Your task to perform on an android device: Show me productivity apps on the Play Store Image 0: 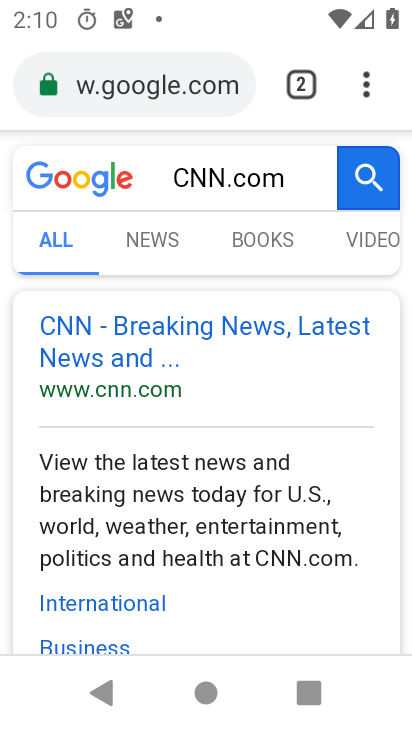
Step 0: press home button
Your task to perform on an android device: Show me productivity apps on the Play Store Image 1: 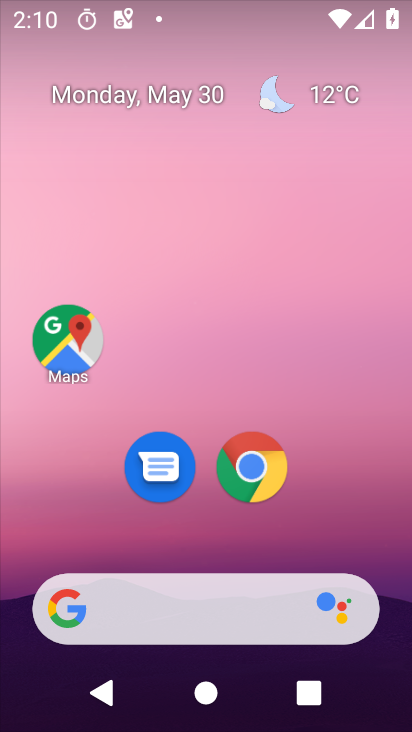
Step 1: drag from (352, 328) to (324, 80)
Your task to perform on an android device: Show me productivity apps on the Play Store Image 2: 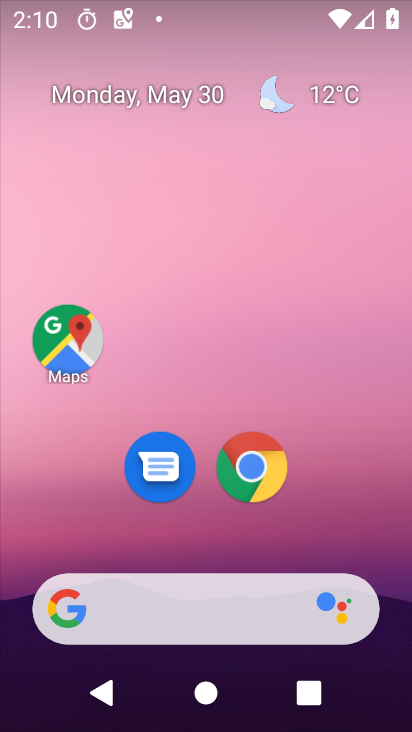
Step 2: drag from (387, 722) to (278, 37)
Your task to perform on an android device: Show me productivity apps on the Play Store Image 3: 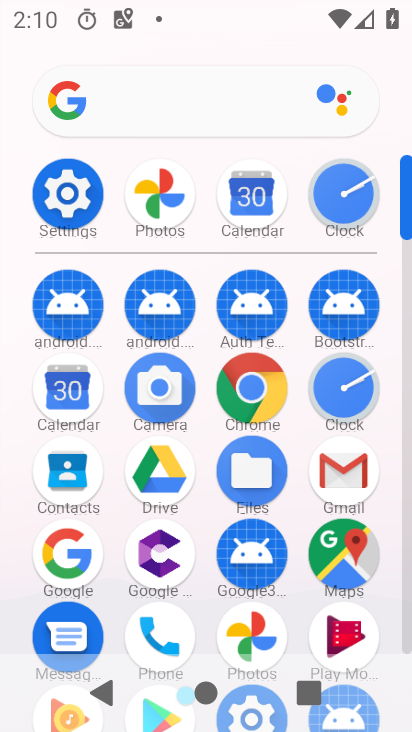
Step 3: drag from (197, 657) to (187, 330)
Your task to perform on an android device: Show me productivity apps on the Play Store Image 4: 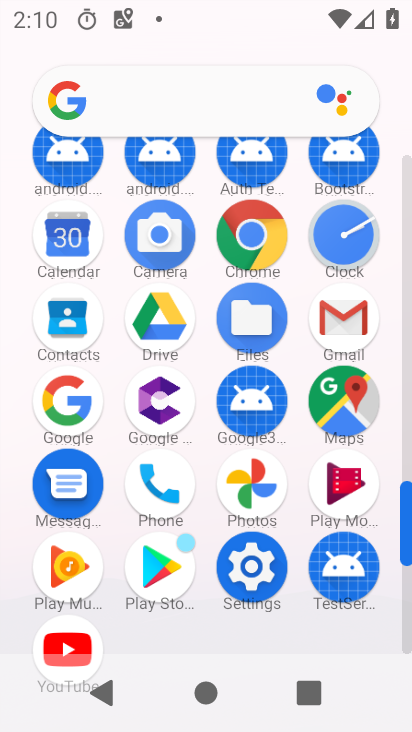
Step 4: click (159, 570)
Your task to perform on an android device: Show me productivity apps on the Play Store Image 5: 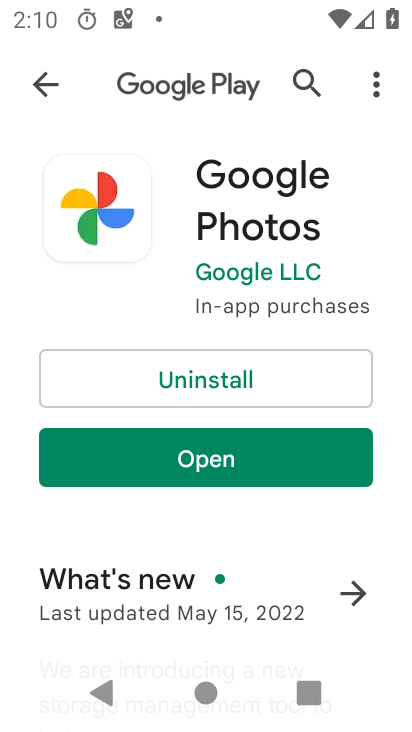
Step 5: click (24, 82)
Your task to perform on an android device: Show me productivity apps on the Play Store Image 6: 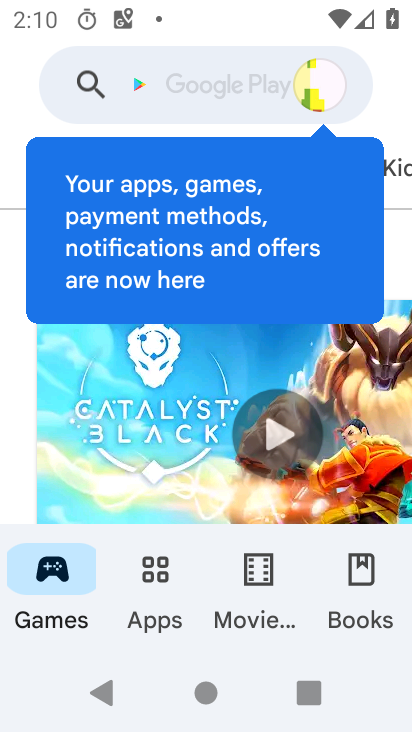
Step 6: click (176, 90)
Your task to perform on an android device: Show me productivity apps on the Play Store Image 7: 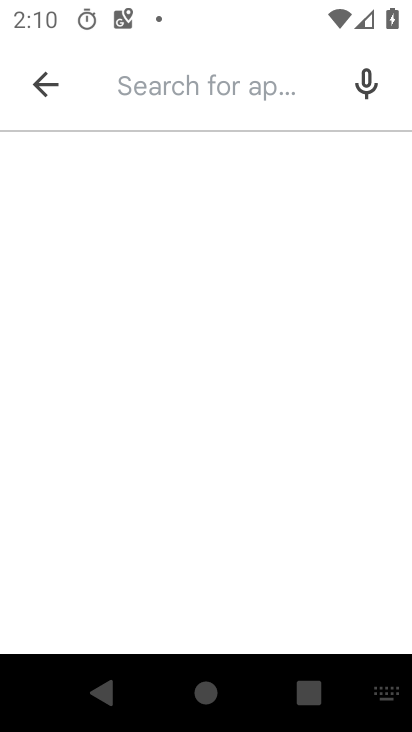
Step 7: type "productivity apps"
Your task to perform on an android device: Show me productivity apps on the Play Store Image 8: 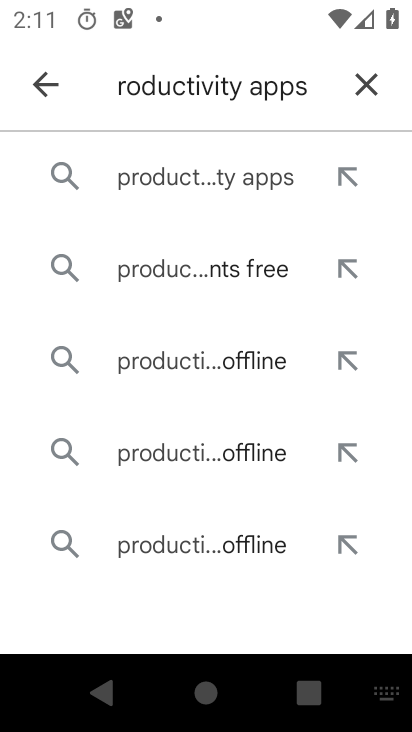
Step 8: click (166, 176)
Your task to perform on an android device: Show me productivity apps on the Play Store Image 9: 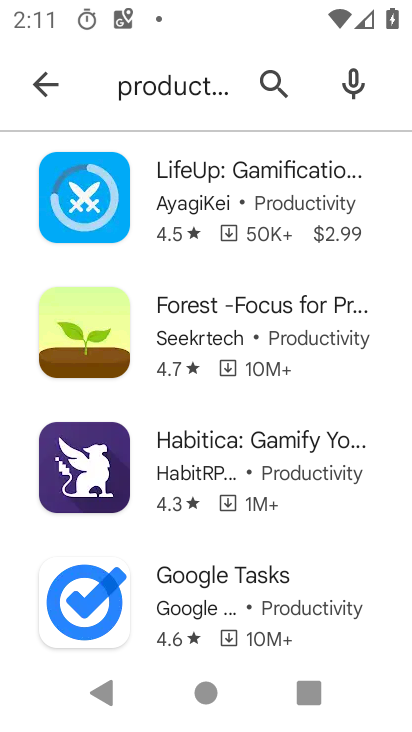
Step 9: task complete